Your task to perform on an android device: open chrome privacy settings Image 0: 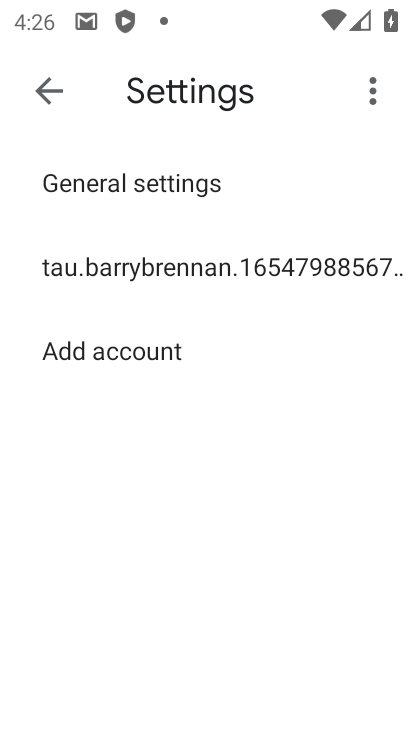
Step 0: press home button
Your task to perform on an android device: open chrome privacy settings Image 1: 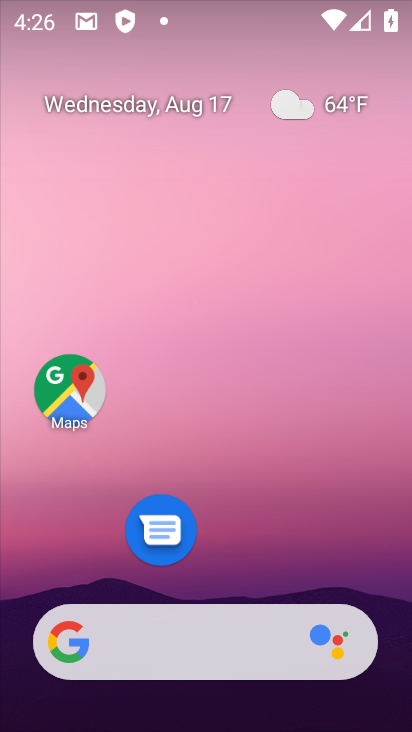
Step 1: drag from (218, 512) to (271, 28)
Your task to perform on an android device: open chrome privacy settings Image 2: 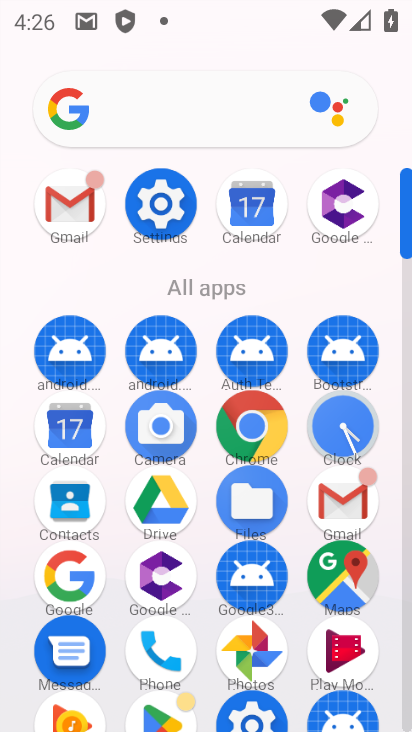
Step 2: click (259, 427)
Your task to perform on an android device: open chrome privacy settings Image 3: 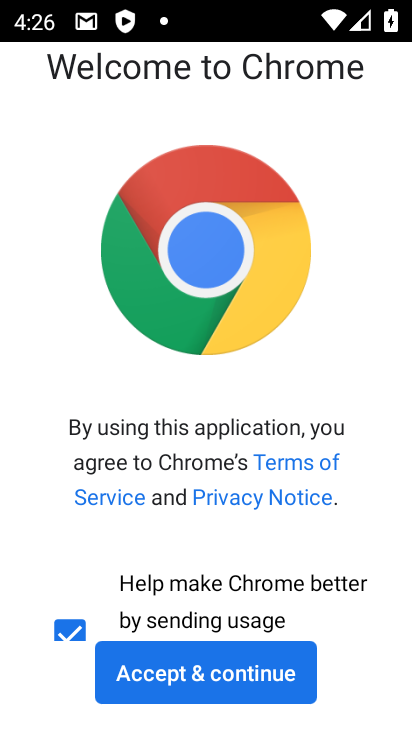
Step 3: click (187, 674)
Your task to perform on an android device: open chrome privacy settings Image 4: 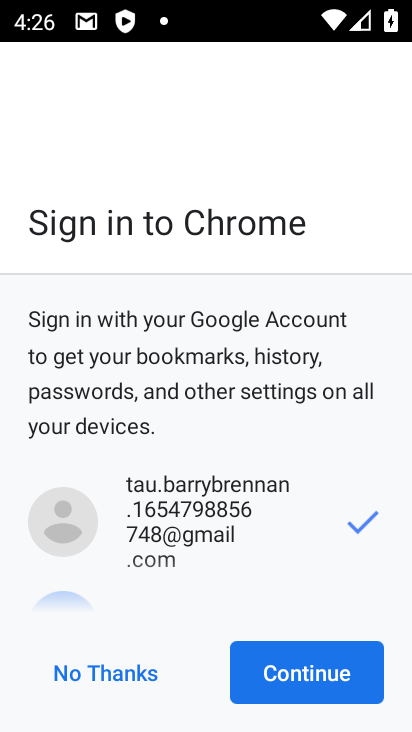
Step 4: click (285, 674)
Your task to perform on an android device: open chrome privacy settings Image 5: 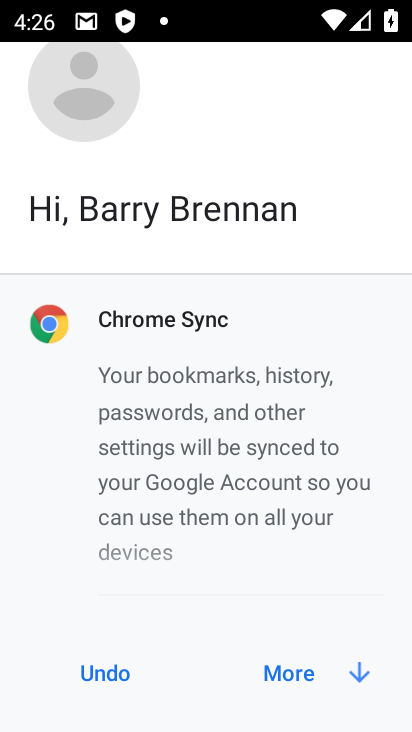
Step 5: click (285, 674)
Your task to perform on an android device: open chrome privacy settings Image 6: 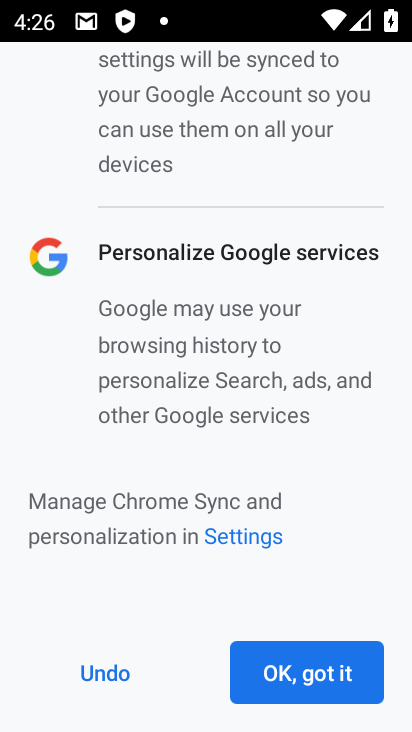
Step 6: click (285, 674)
Your task to perform on an android device: open chrome privacy settings Image 7: 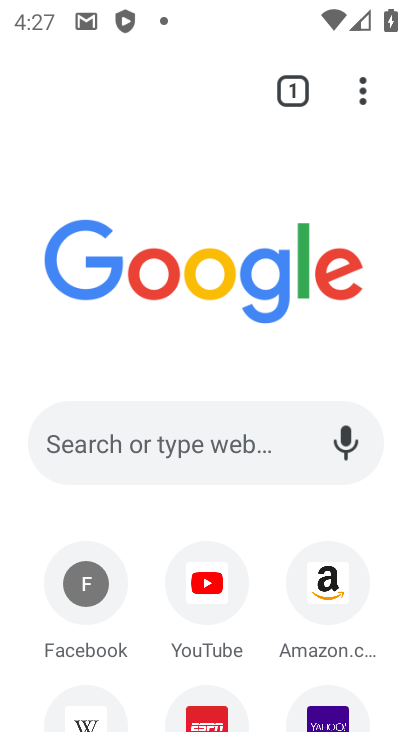
Step 7: click (359, 97)
Your task to perform on an android device: open chrome privacy settings Image 8: 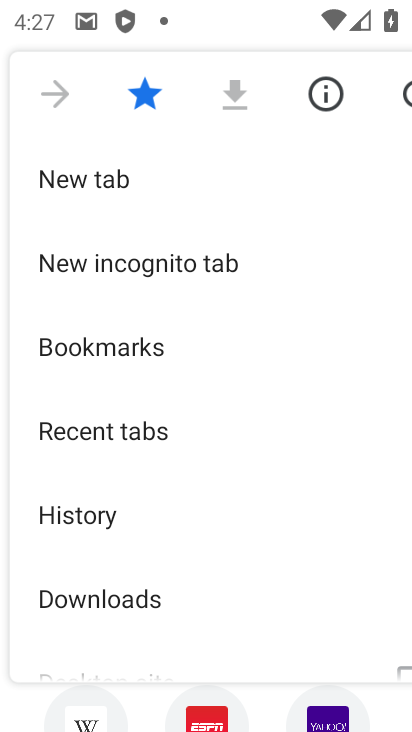
Step 8: drag from (111, 608) to (111, 311)
Your task to perform on an android device: open chrome privacy settings Image 9: 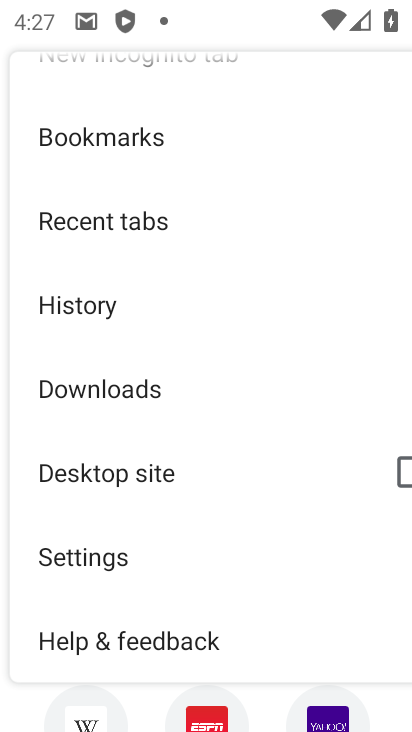
Step 9: click (114, 564)
Your task to perform on an android device: open chrome privacy settings Image 10: 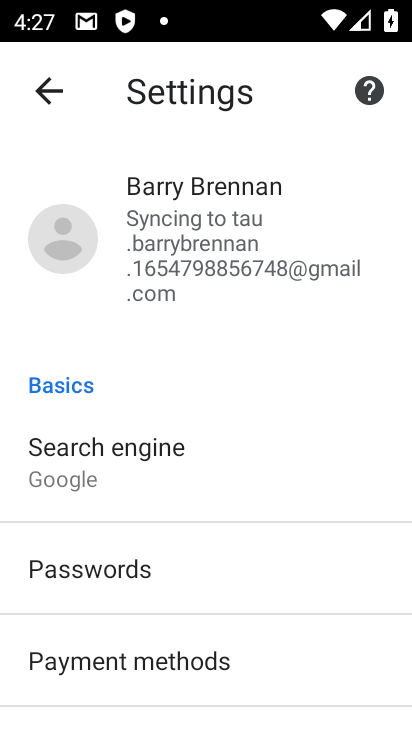
Step 10: drag from (124, 617) to (142, 271)
Your task to perform on an android device: open chrome privacy settings Image 11: 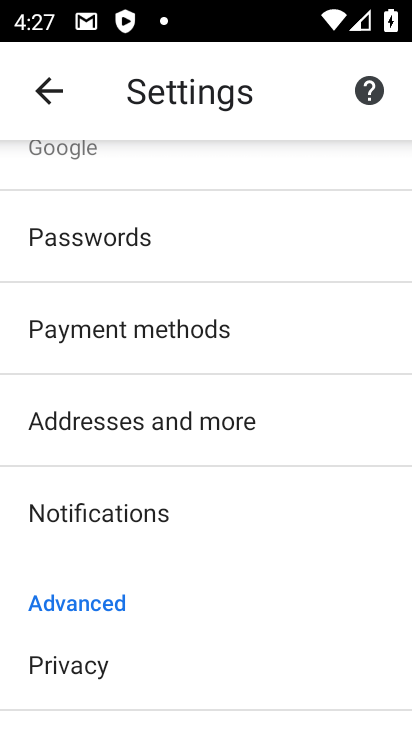
Step 11: click (84, 656)
Your task to perform on an android device: open chrome privacy settings Image 12: 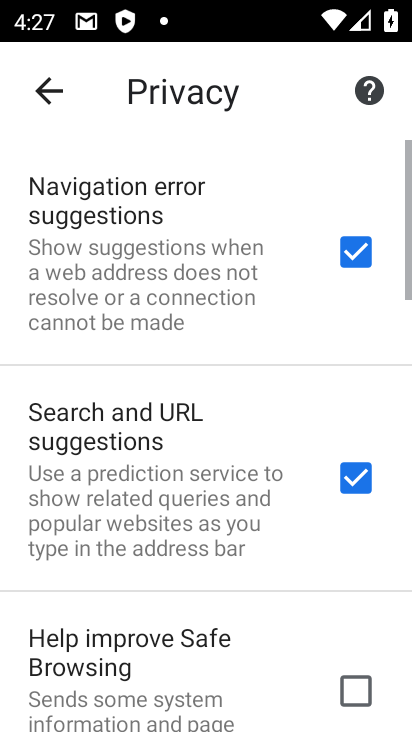
Step 12: task complete